Your task to perform on an android device: Open Chrome and go to the settings page Image 0: 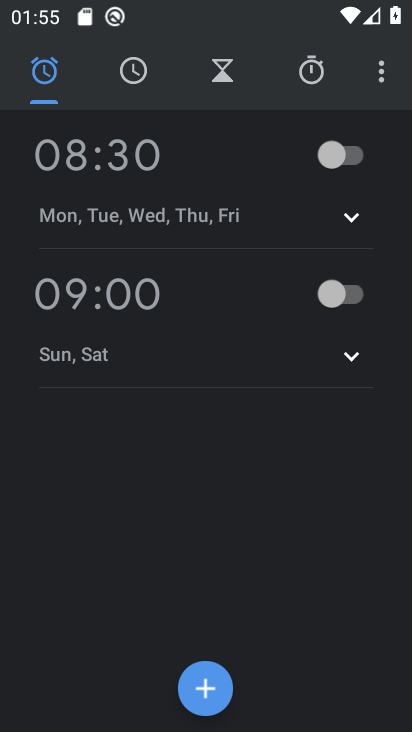
Step 0: press home button
Your task to perform on an android device: Open Chrome and go to the settings page Image 1: 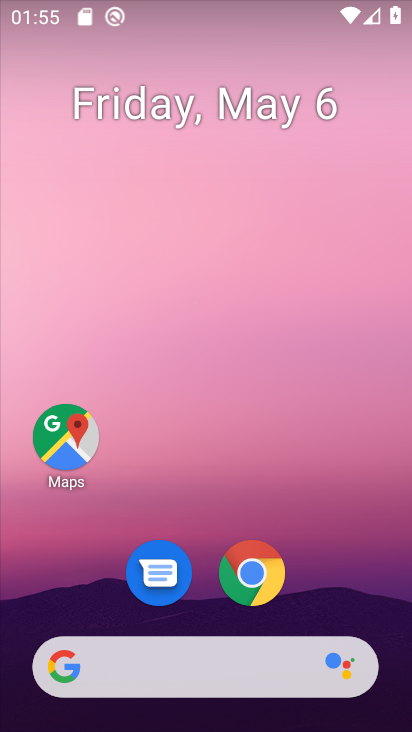
Step 1: drag from (328, 550) to (340, 270)
Your task to perform on an android device: Open Chrome and go to the settings page Image 2: 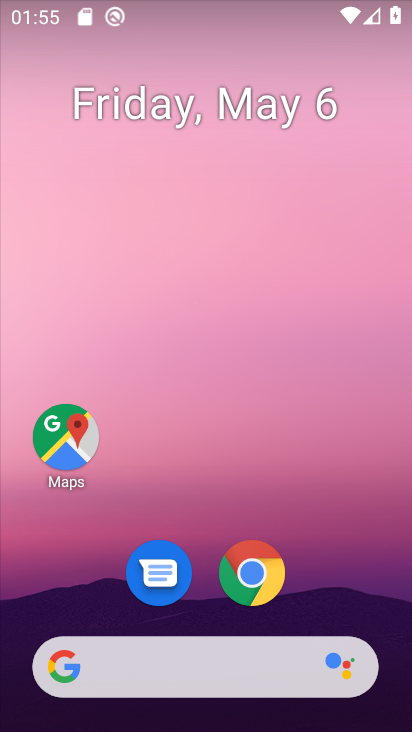
Step 2: drag from (317, 591) to (337, 244)
Your task to perform on an android device: Open Chrome and go to the settings page Image 3: 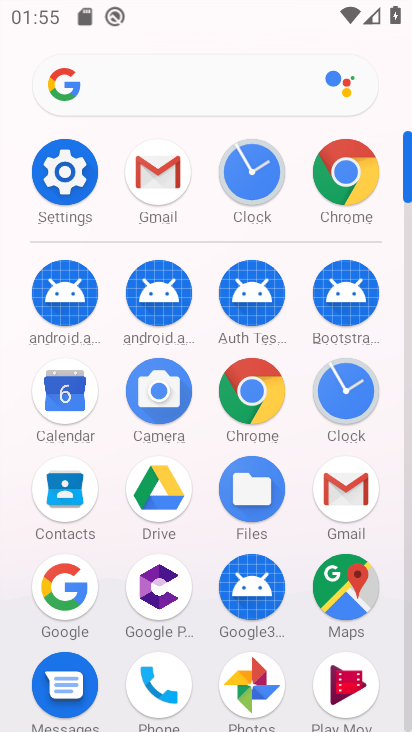
Step 3: click (249, 392)
Your task to perform on an android device: Open Chrome and go to the settings page Image 4: 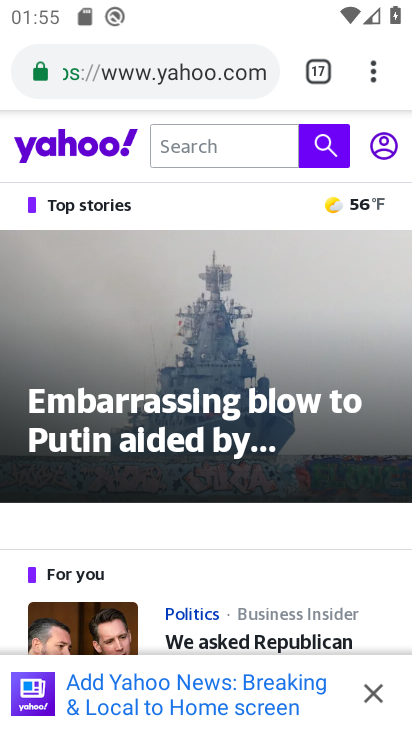
Step 4: click (362, 73)
Your task to perform on an android device: Open Chrome and go to the settings page Image 5: 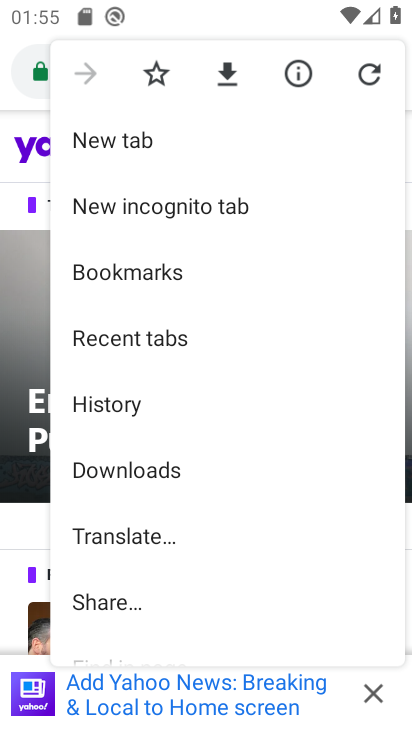
Step 5: drag from (234, 554) to (314, 239)
Your task to perform on an android device: Open Chrome and go to the settings page Image 6: 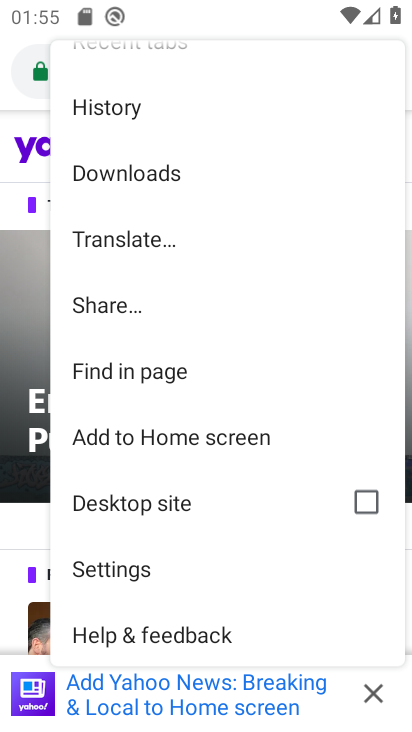
Step 6: click (161, 565)
Your task to perform on an android device: Open Chrome and go to the settings page Image 7: 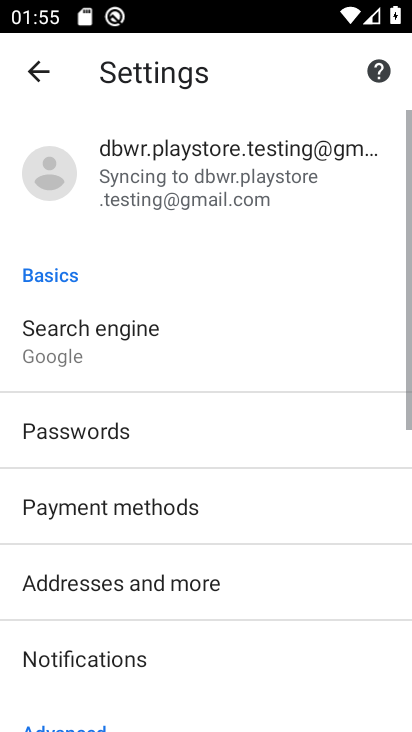
Step 7: task complete